Your task to perform on an android device: see sites visited before in the chrome app Image 0: 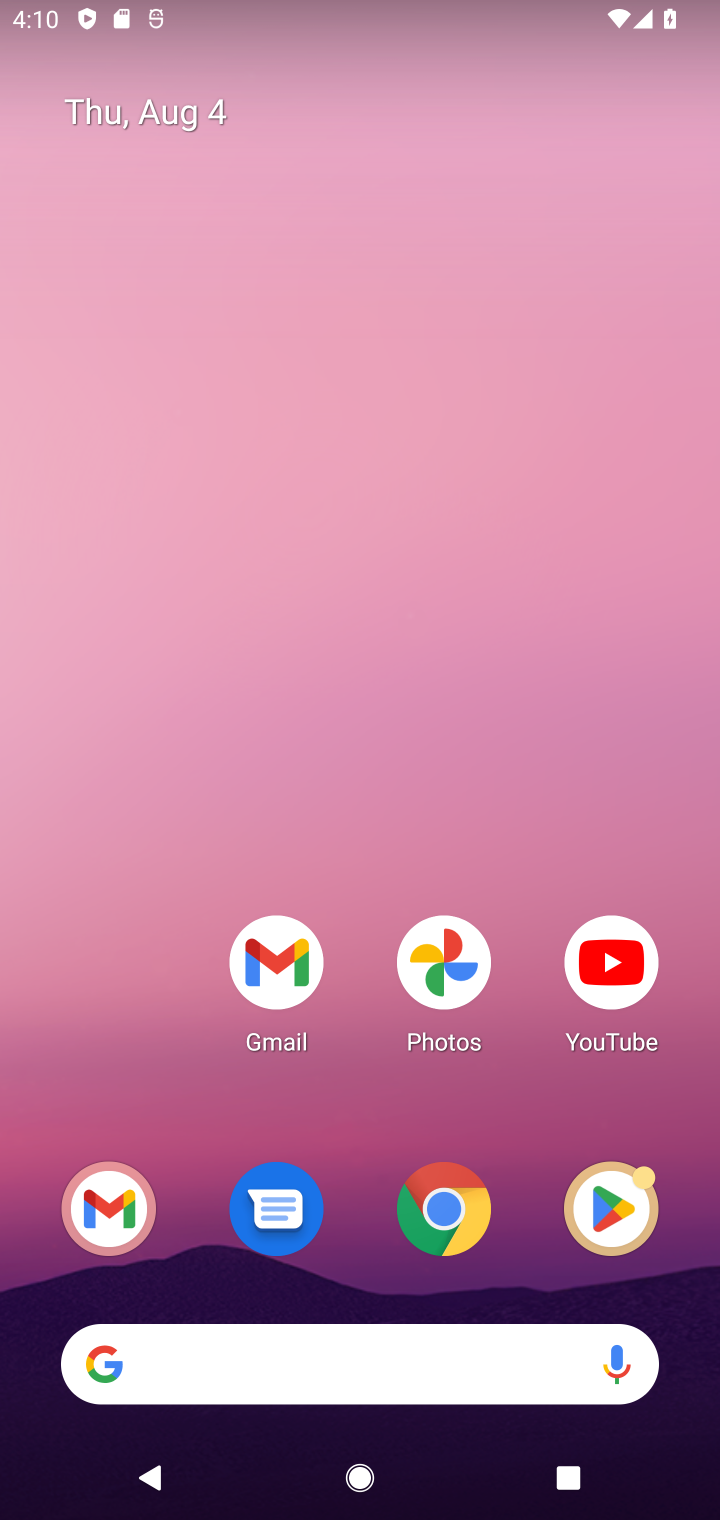
Step 0: drag from (331, 1144) to (498, 102)
Your task to perform on an android device: see sites visited before in the chrome app Image 1: 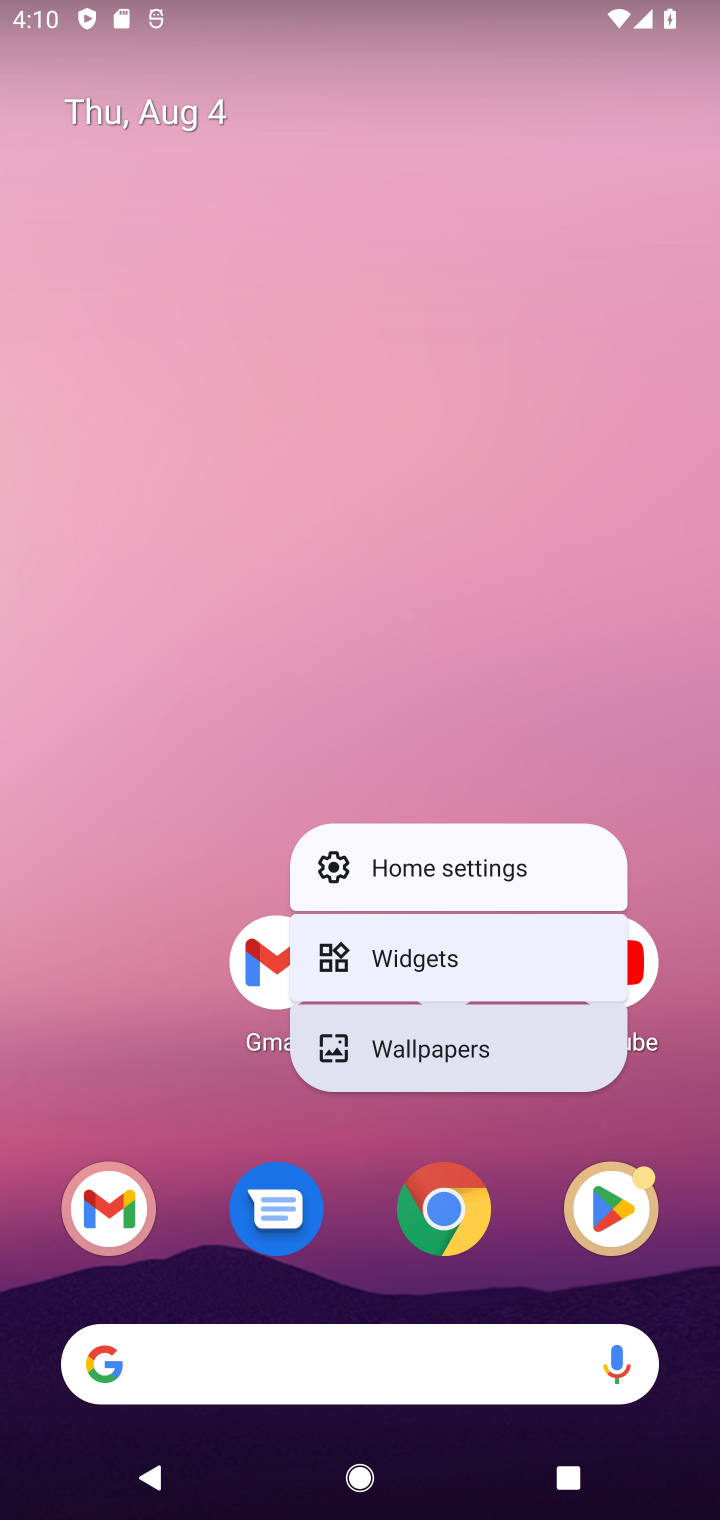
Step 1: click (339, 1265)
Your task to perform on an android device: see sites visited before in the chrome app Image 2: 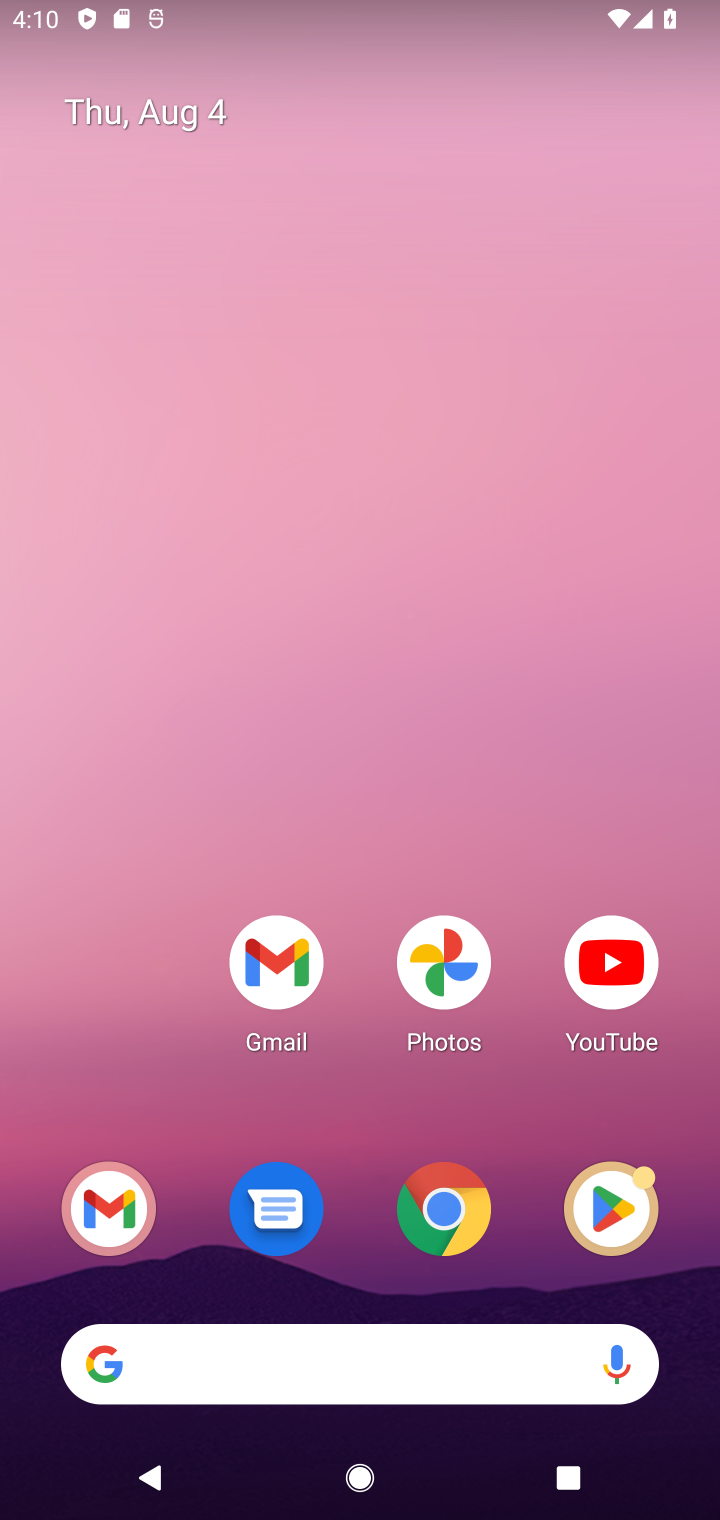
Step 2: click (440, 1214)
Your task to perform on an android device: see sites visited before in the chrome app Image 3: 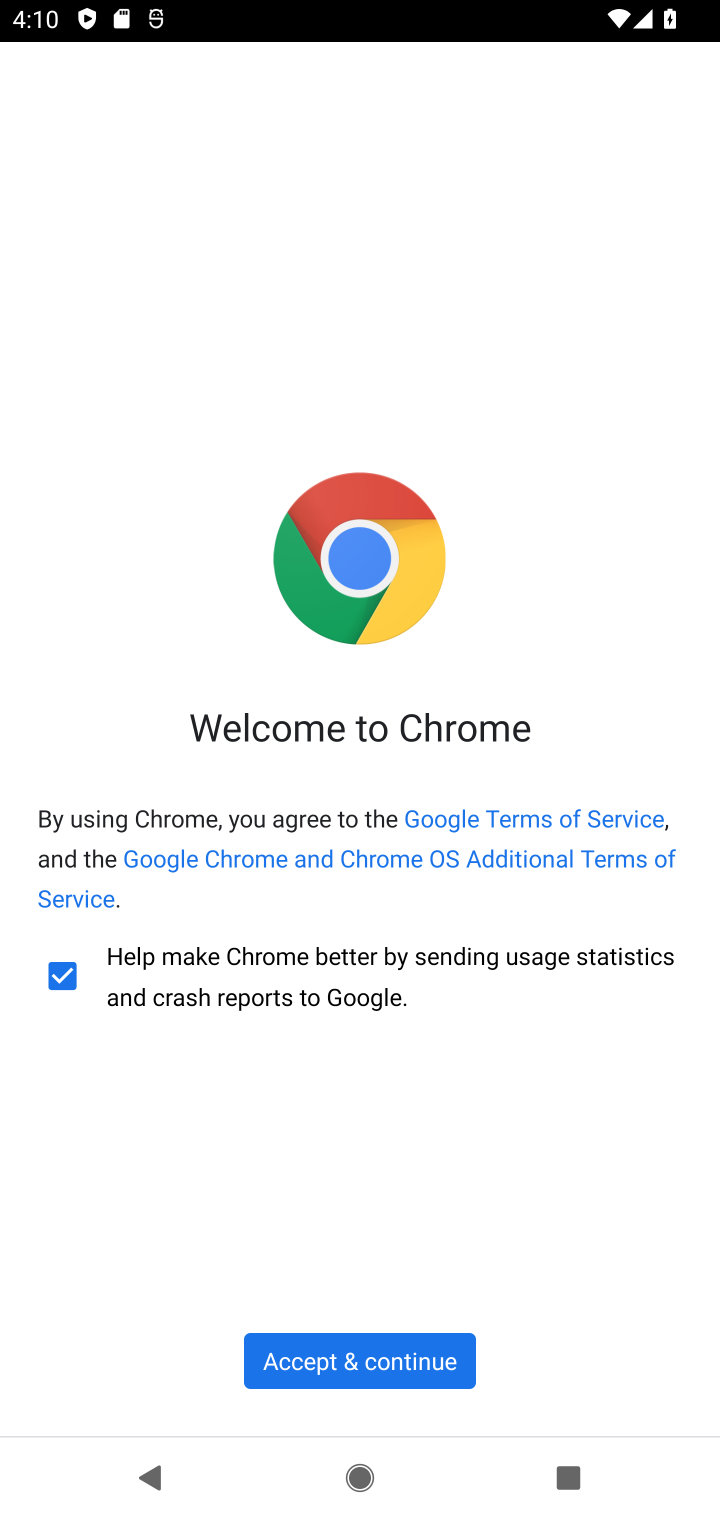
Step 3: click (344, 1371)
Your task to perform on an android device: see sites visited before in the chrome app Image 4: 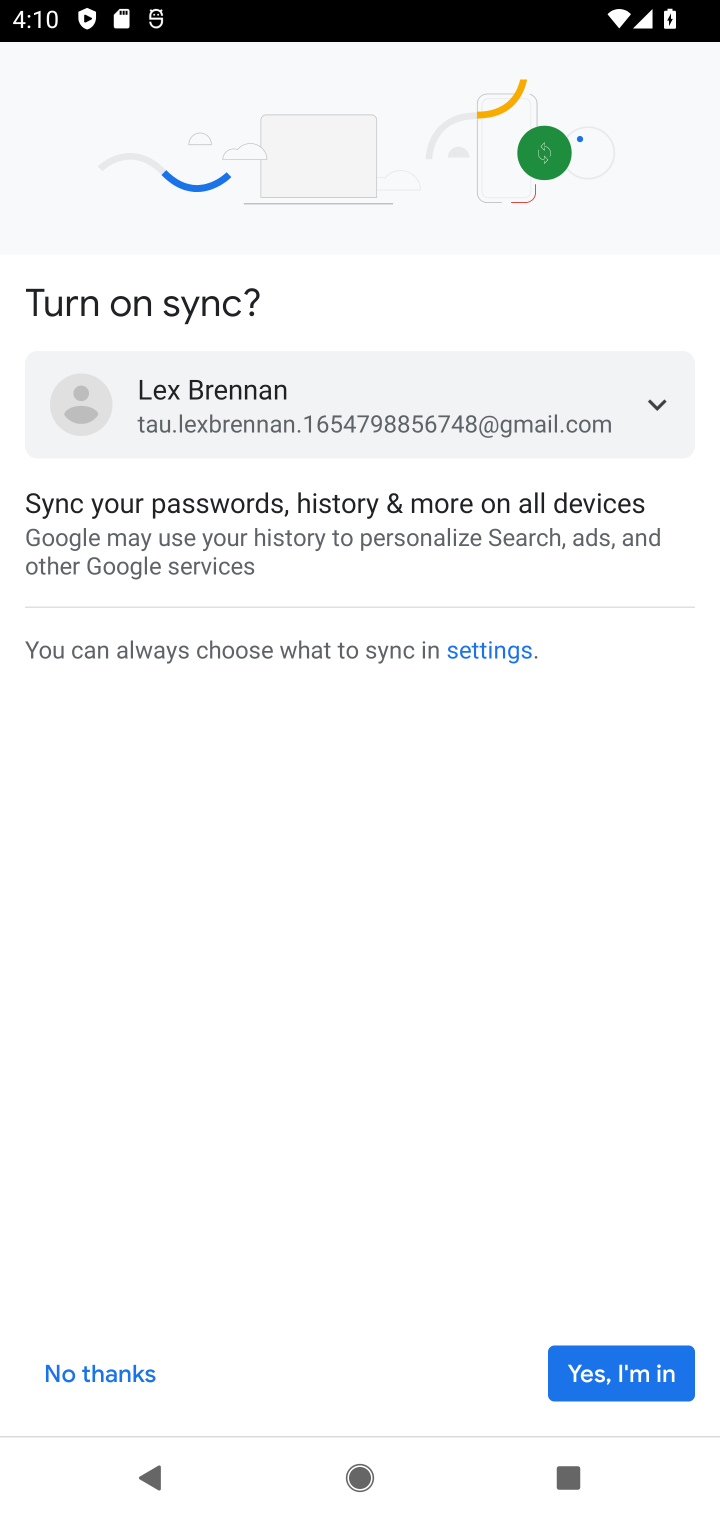
Step 4: click (606, 1392)
Your task to perform on an android device: see sites visited before in the chrome app Image 5: 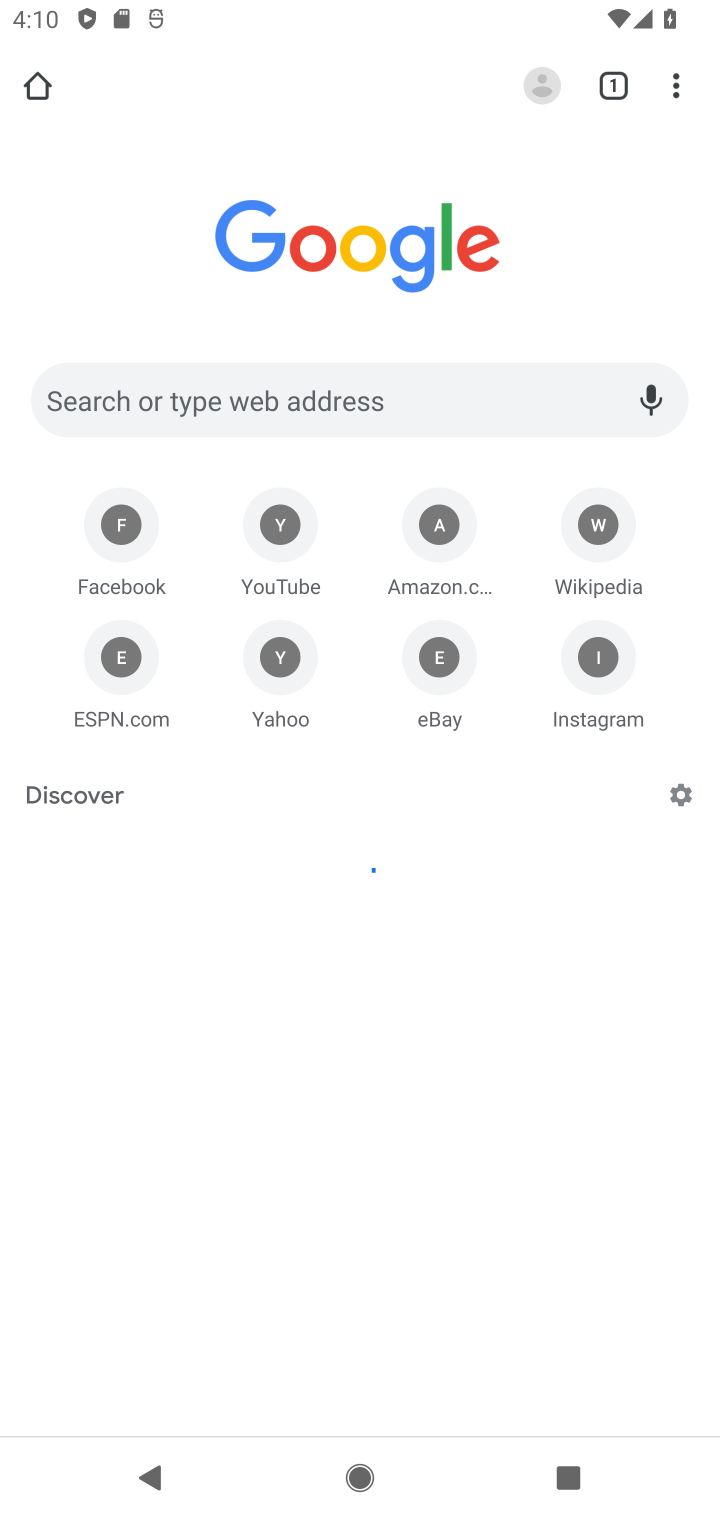
Step 5: click (592, 1382)
Your task to perform on an android device: see sites visited before in the chrome app Image 6: 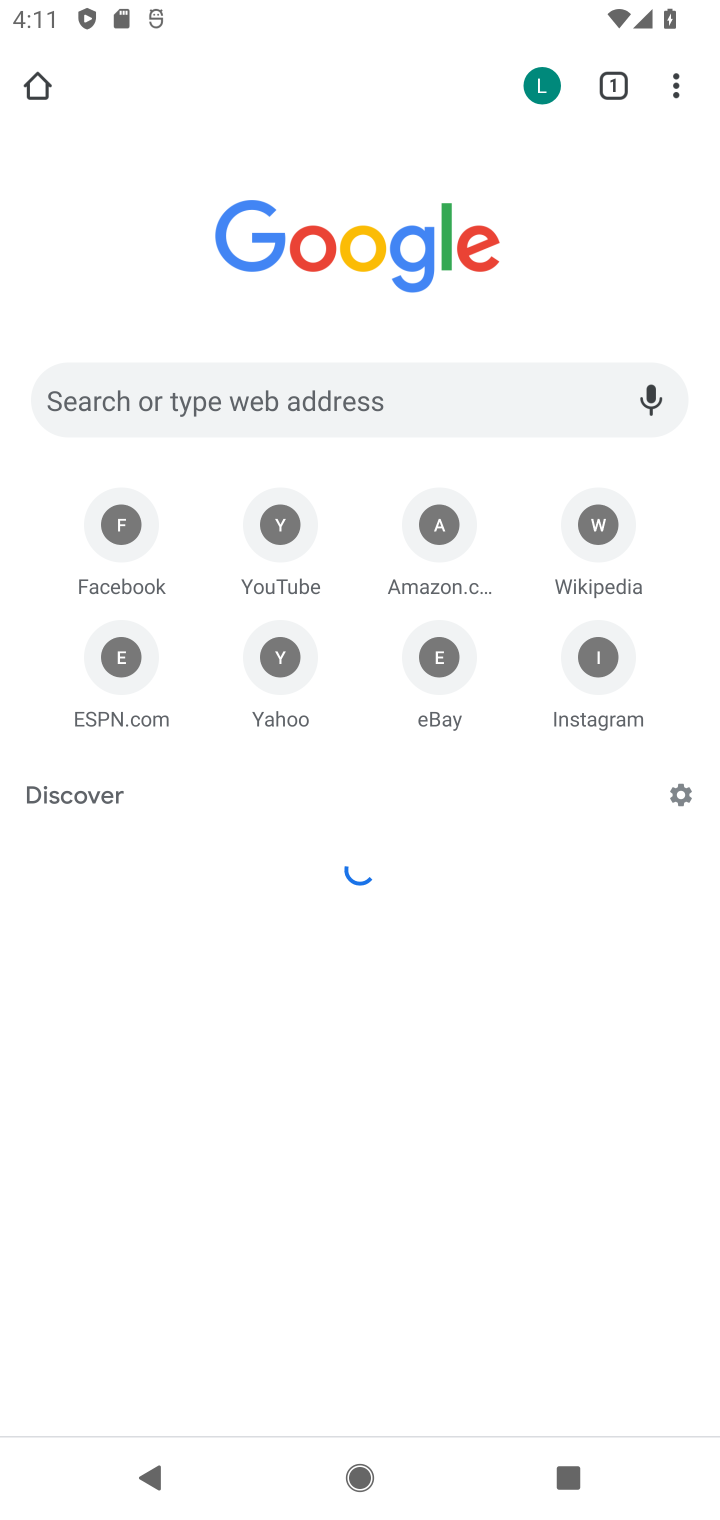
Step 6: click (679, 92)
Your task to perform on an android device: see sites visited before in the chrome app Image 7: 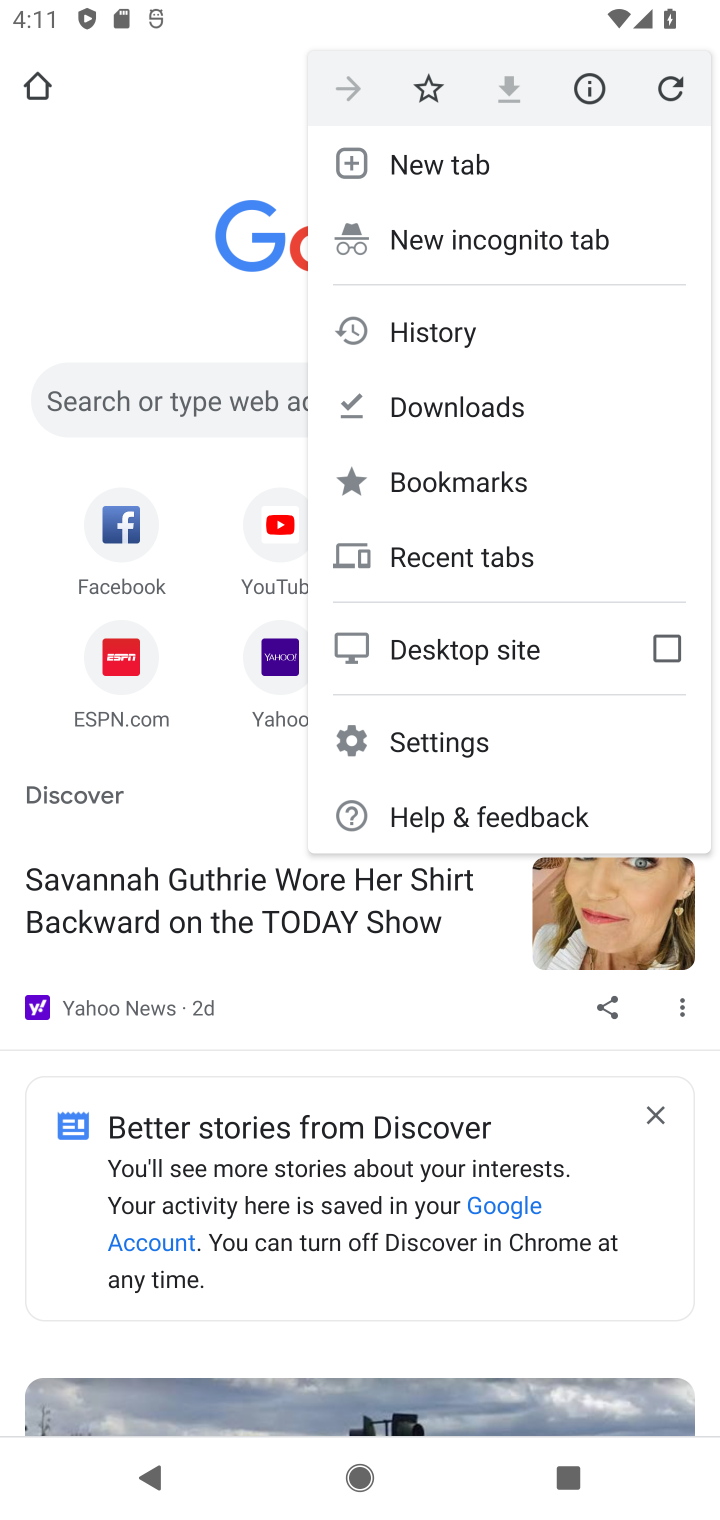
Step 7: click (673, 92)
Your task to perform on an android device: see sites visited before in the chrome app Image 8: 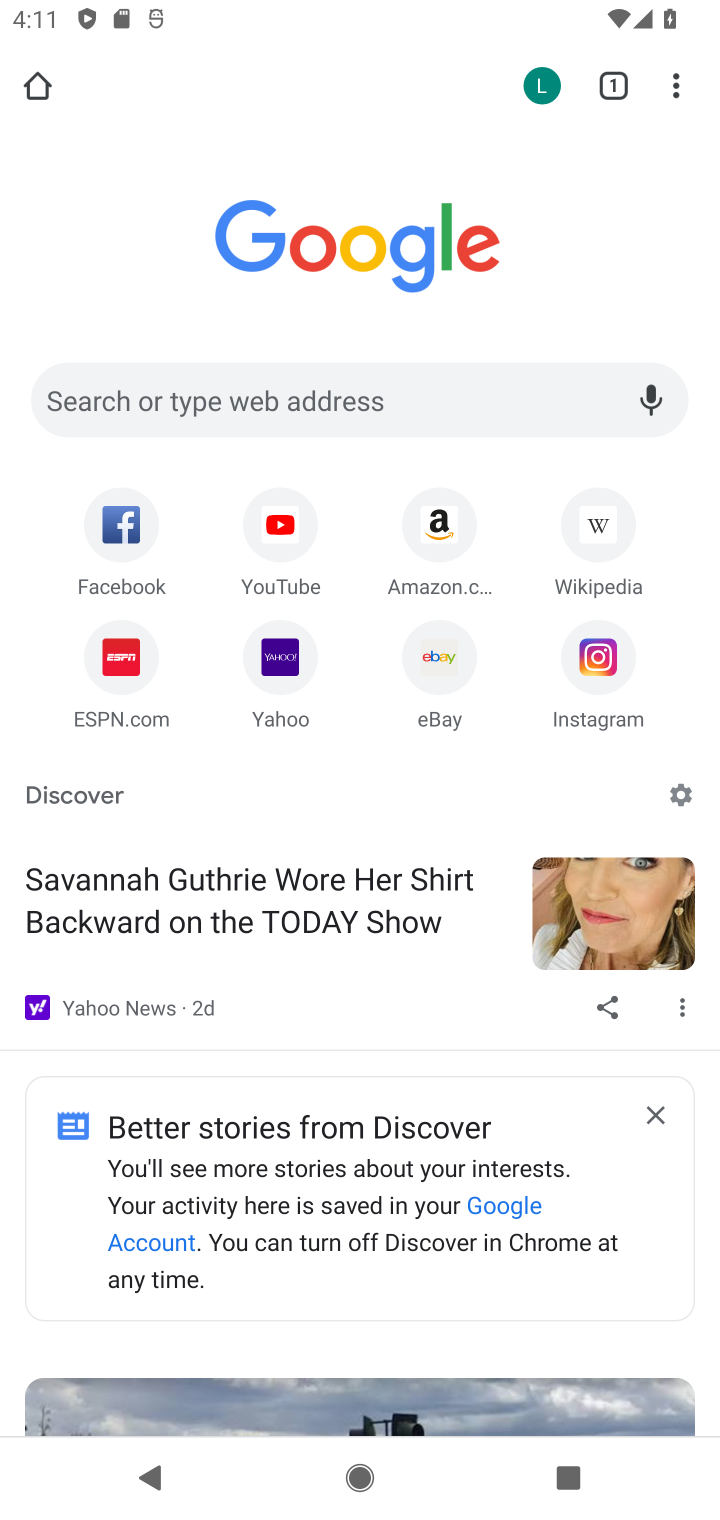
Step 8: click (409, 336)
Your task to perform on an android device: see sites visited before in the chrome app Image 9: 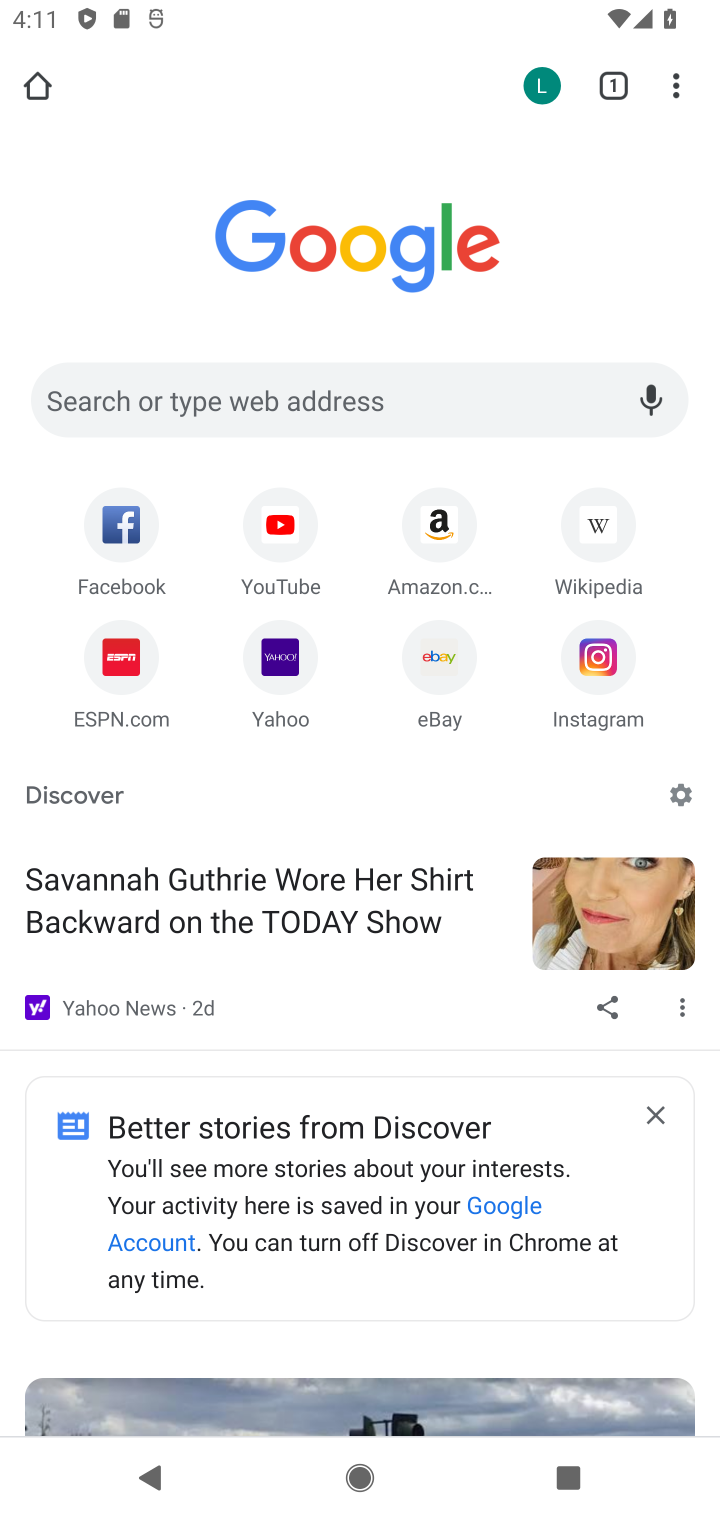
Step 9: click (667, 85)
Your task to perform on an android device: see sites visited before in the chrome app Image 10: 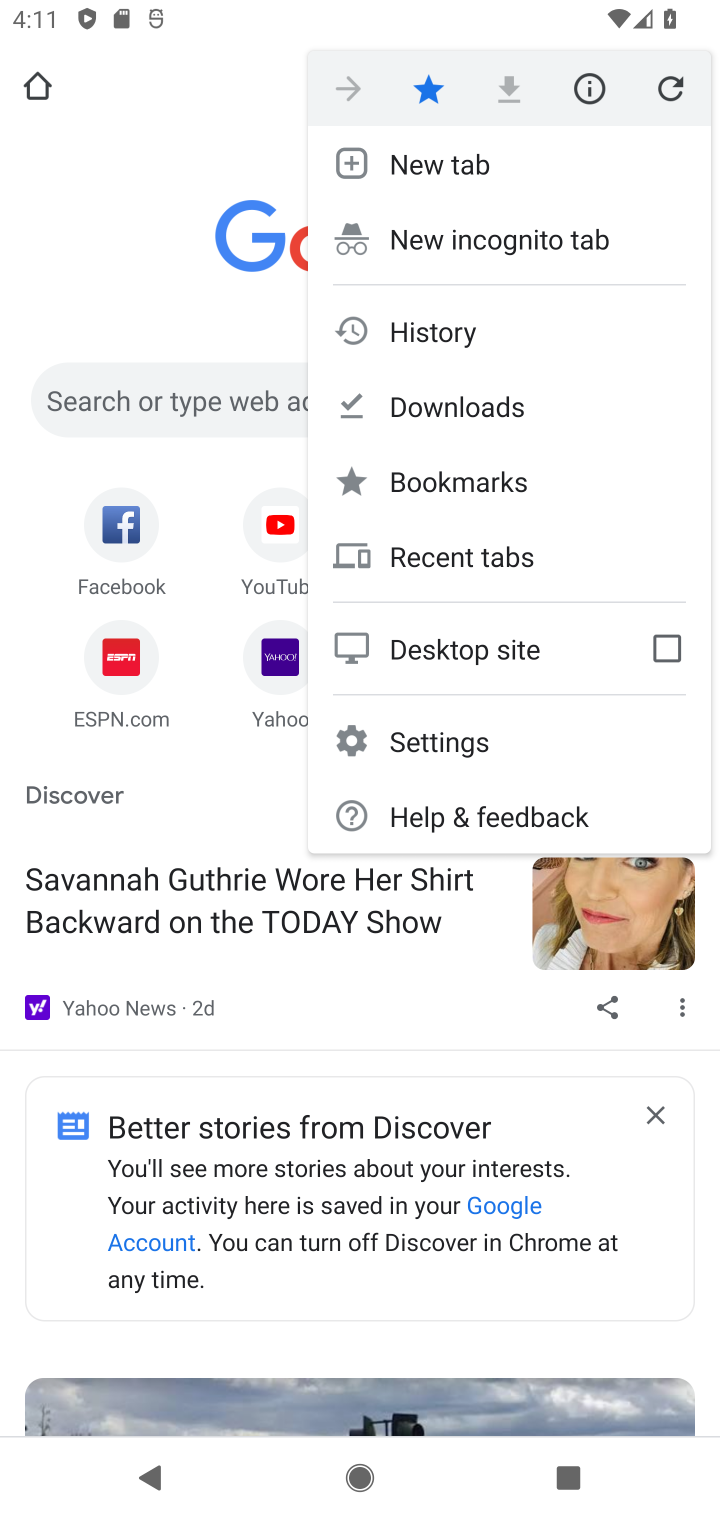
Step 10: click (436, 344)
Your task to perform on an android device: see sites visited before in the chrome app Image 11: 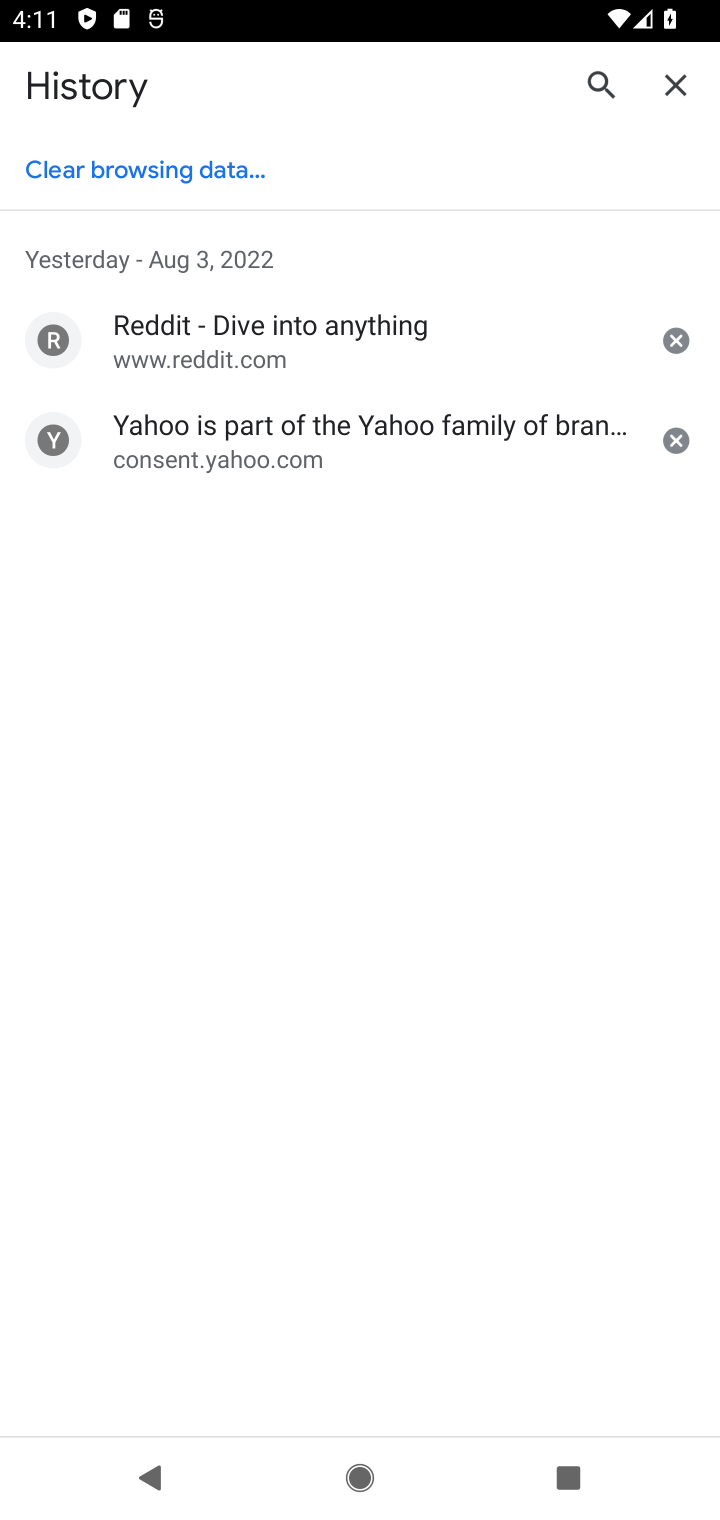
Step 11: task complete